Your task to perform on an android device: Search for seafood restaurants on Google Maps Image 0: 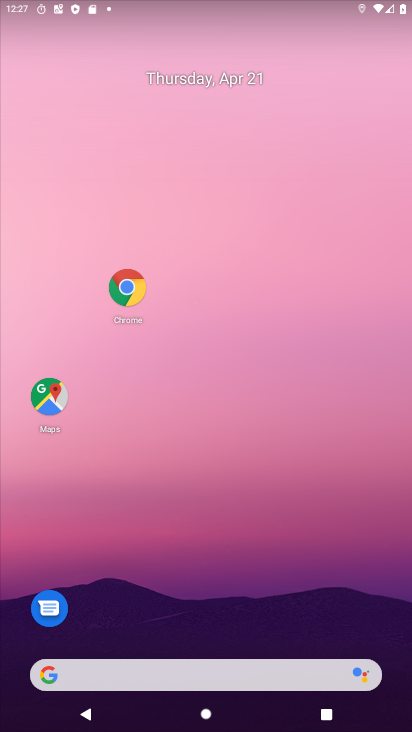
Step 0: click (56, 393)
Your task to perform on an android device: Search for seafood restaurants on Google Maps Image 1: 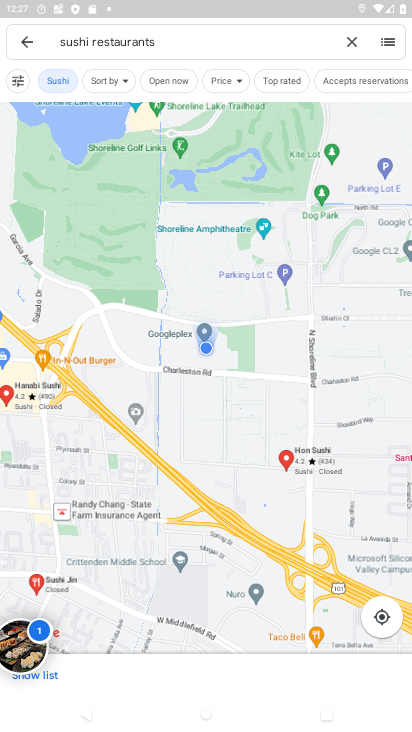
Step 1: click (354, 46)
Your task to perform on an android device: Search for seafood restaurants on Google Maps Image 2: 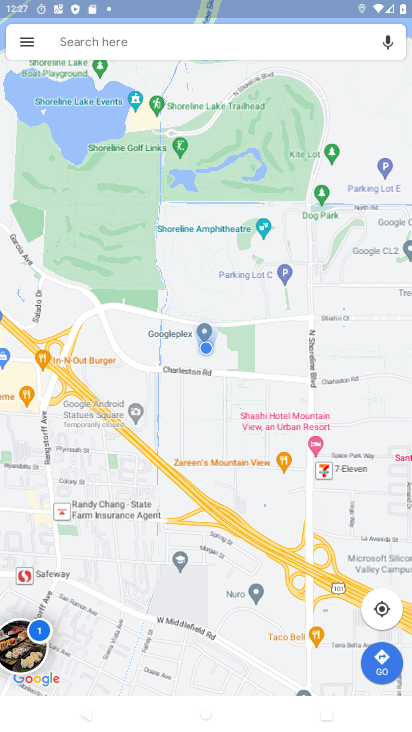
Step 2: click (86, 46)
Your task to perform on an android device: Search for seafood restaurants on Google Maps Image 3: 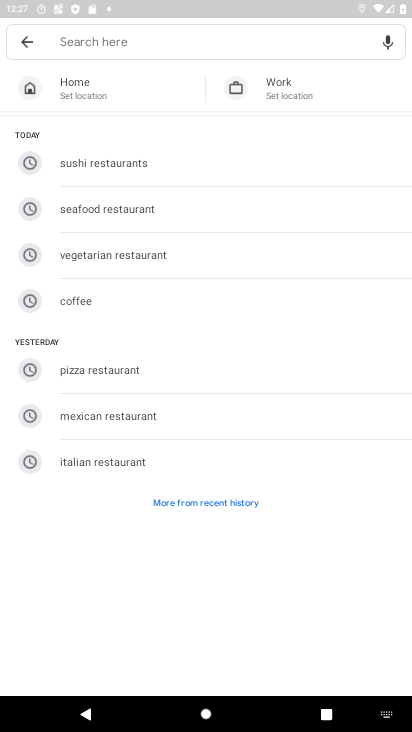
Step 3: click (93, 209)
Your task to perform on an android device: Search for seafood restaurants on Google Maps Image 4: 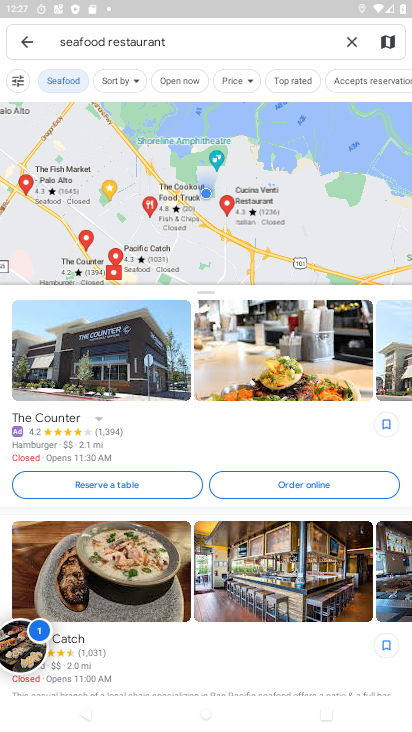
Step 4: task complete